Your task to perform on an android device: Go to Reddit.com Image 0: 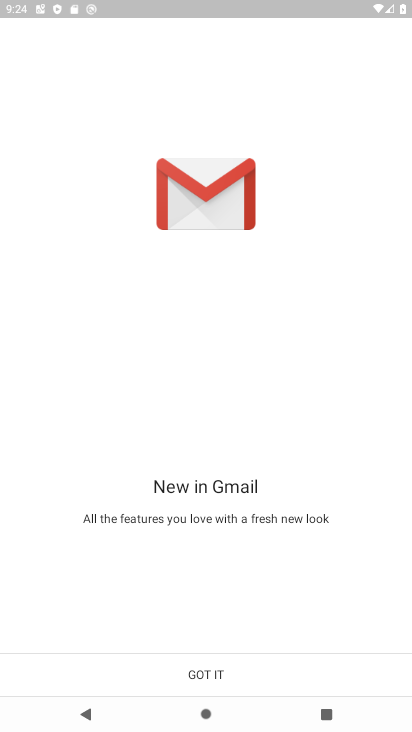
Step 0: press home button
Your task to perform on an android device: Go to Reddit.com Image 1: 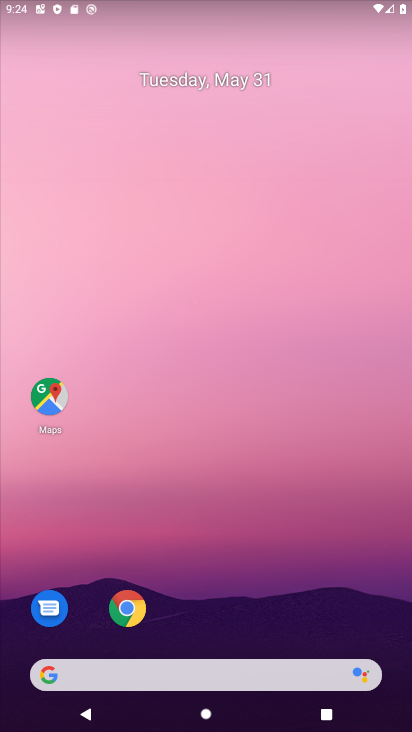
Step 1: click (216, 685)
Your task to perform on an android device: Go to Reddit.com Image 2: 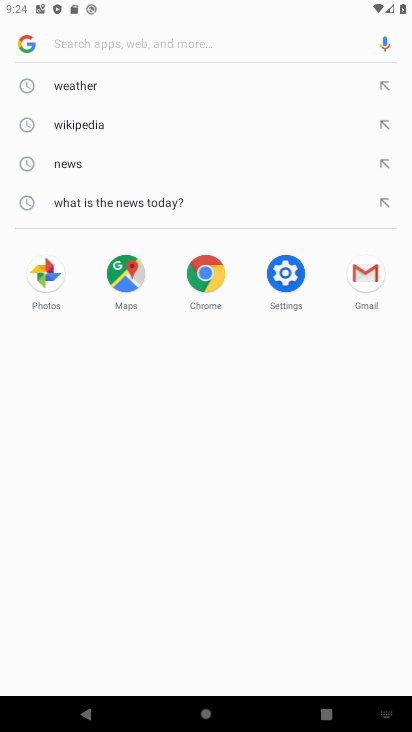
Step 2: type "reddit.com"
Your task to perform on an android device: Go to Reddit.com Image 3: 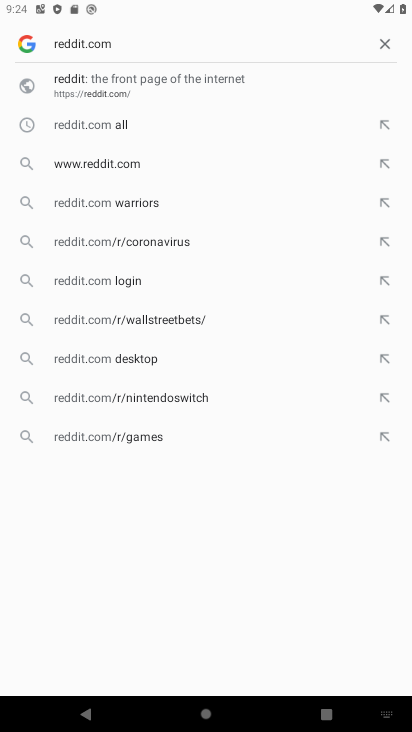
Step 3: click (141, 105)
Your task to perform on an android device: Go to Reddit.com Image 4: 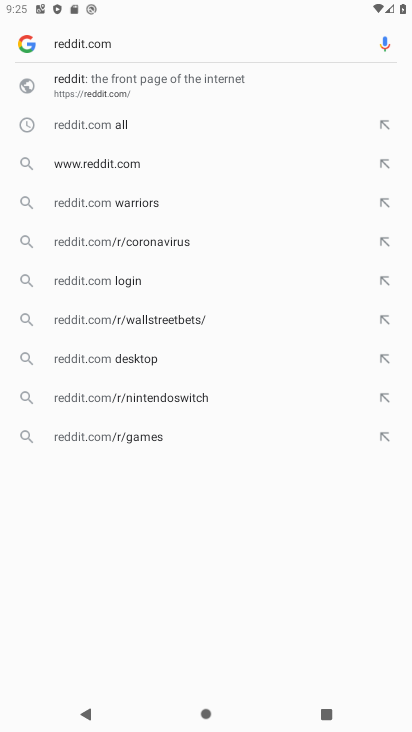
Step 4: task complete